Your task to perform on an android device: Go to privacy settings Image 0: 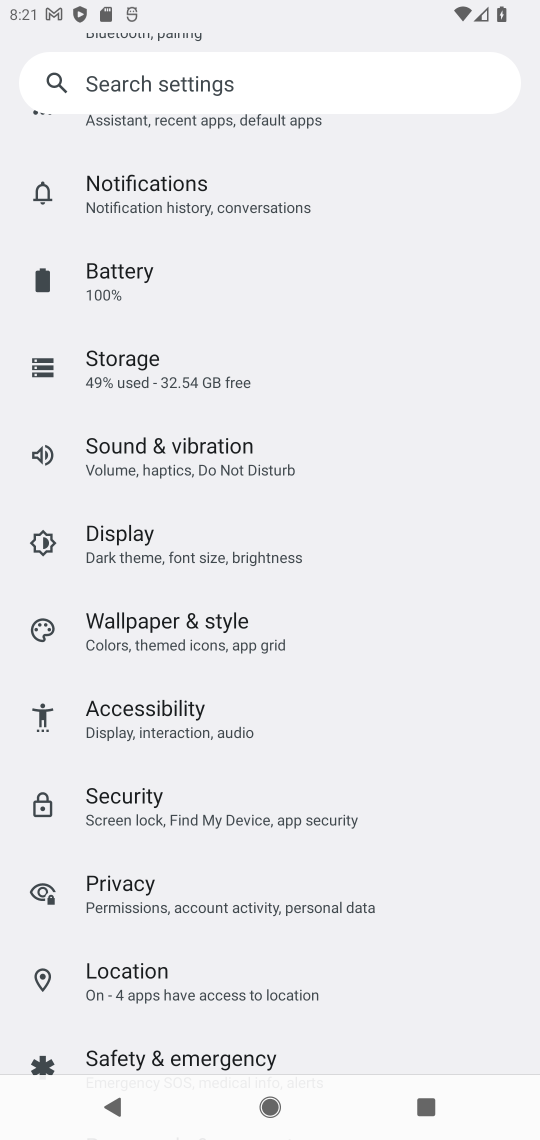
Step 0: click (198, 882)
Your task to perform on an android device: Go to privacy settings Image 1: 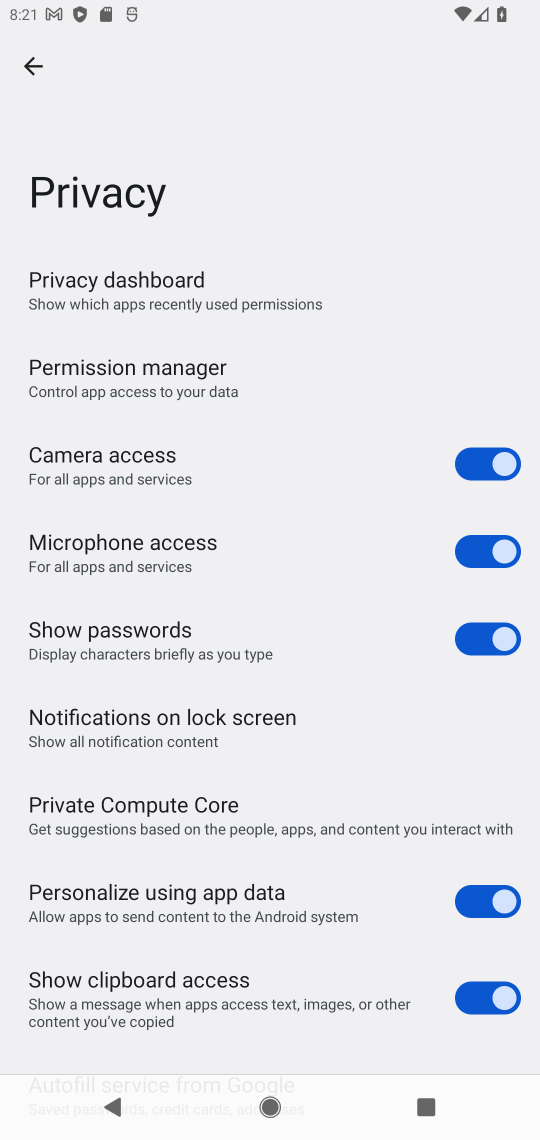
Step 1: task complete